Your task to perform on an android device: How much does a 2 bedroom apartment rent for in Houston? Image 0: 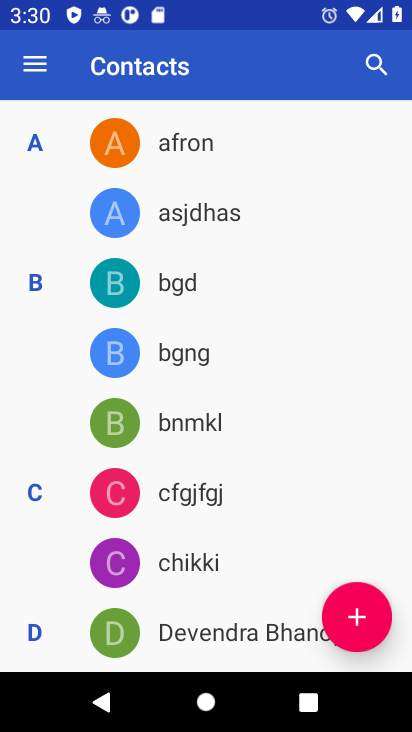
Step 0: press home button
Your task to perform on an android device: How much does a 2 bedroom apartment rent for in Houston? Image 1: 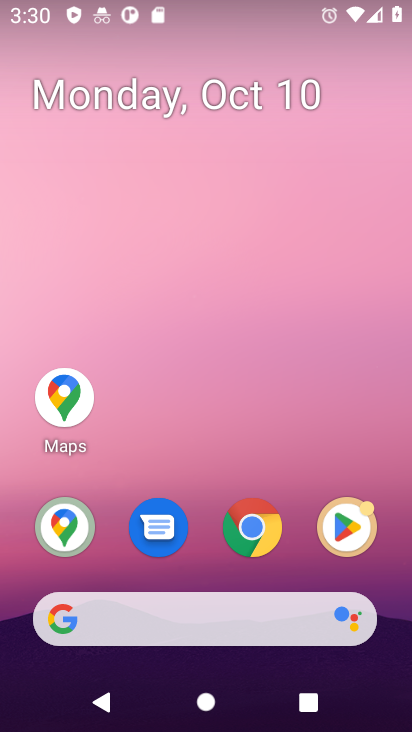
Step 1: click (253, 528)
Your task to perform on an android device: How much does a 2 bedroom apartment rent for in Houston? Image 2: 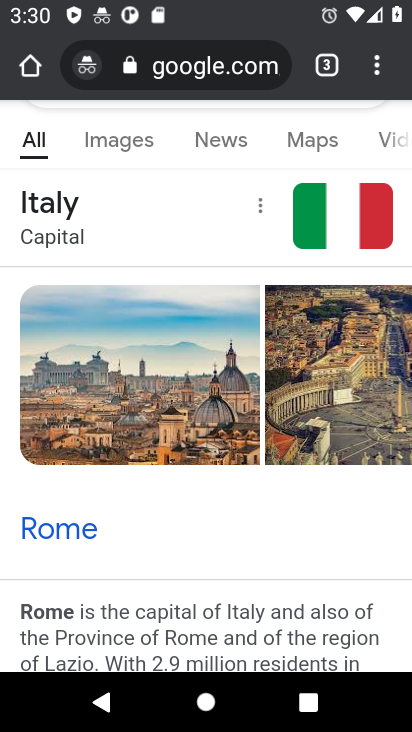
Step 2: click (227, 73)
Your task to perform on an android device: How much does a 2 bedroom apartment rent for in Houston? Image 3: 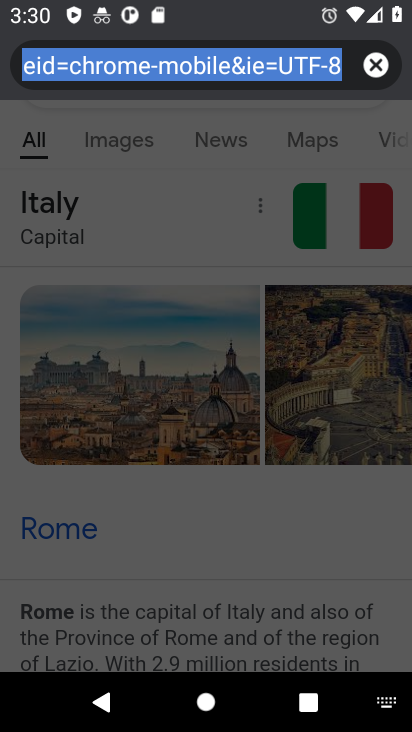
Step 3: click (377, 67)
Your task to perform on an android device: How much does a 2 bedroom apartment rent for in Houston? Image 4: 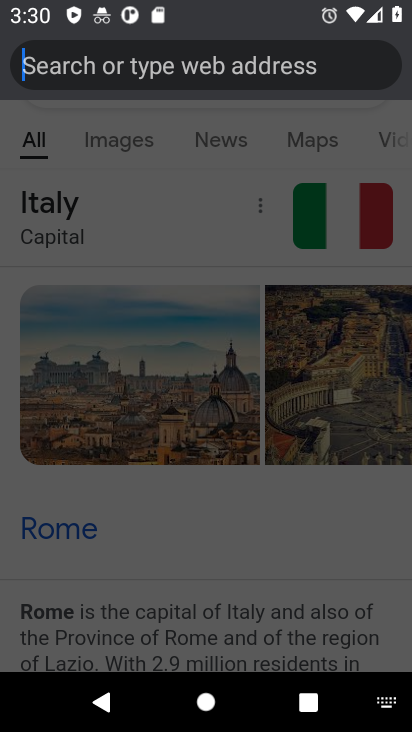
Step 4: type "How much does a 2 bedroom apartment rent for in Houston?"
Your task to perform on an android device: How much does a 2 bedroom apartment rent for in Houston? Image 5: 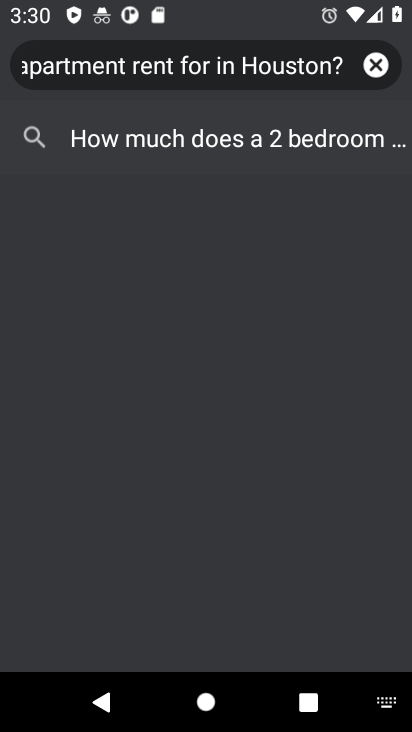
Step 5: click (293, 146)
Your task to perform on an android device: How much does a 2 bedroom apartment rent for in Houston? Image 6: 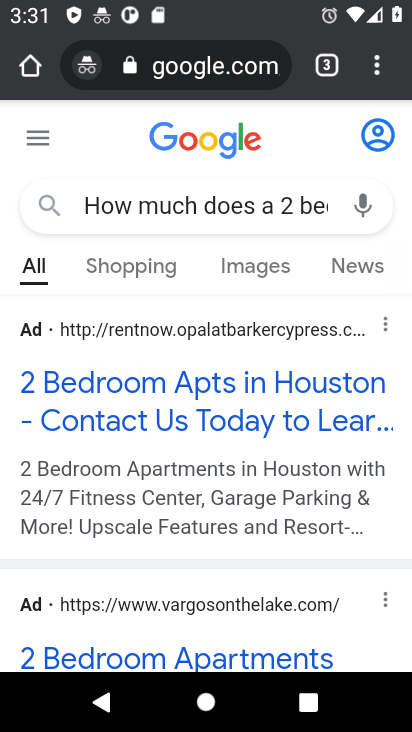
Step 6: drag from (153, 581) to (243, 371)
Your task to perform on an android device: How much does a 2 bedroom apartment rent for in Houston? Image 7: 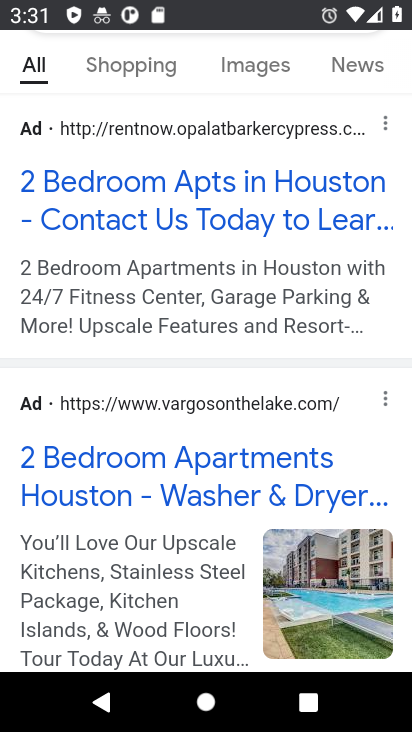
Step 7: drag from (174, 608) to (249, 423)
Your task to perform on an android device: How much does a 2 bedroom apartment rent for in Houston? Image 8: 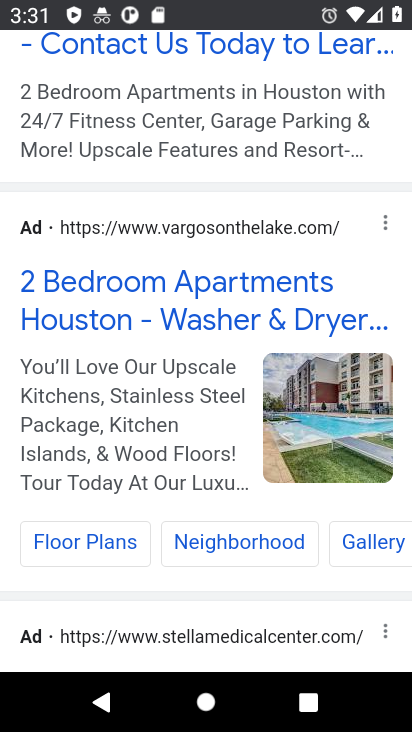
Step 8: drag from (131, 573) to (233, 341)
Your task to perform on an android device: How much does a 2 bedroom apartment rent for in Houston? Image 9: 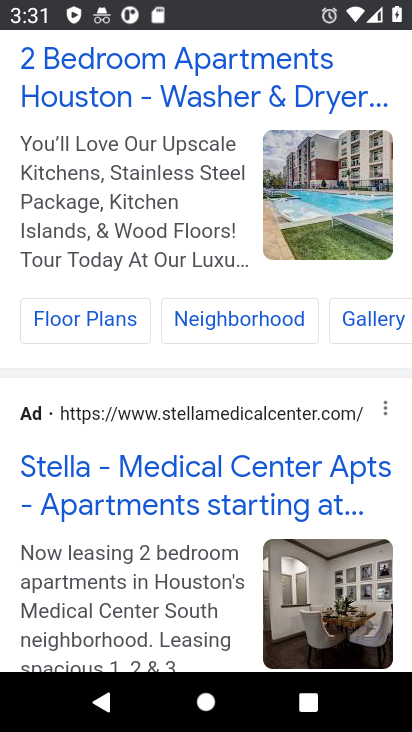
Step 9: drag from (196, 433) to (209, 368)
Your task to perform on an android device: How much does a 2 bedroom apartment rent for in Houston? Image 10: 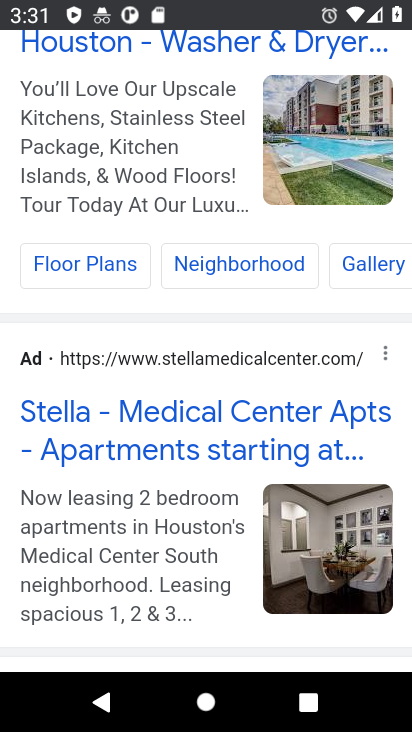
Step 10: drag from (131, 623) to (256, 391)
Your task to perform on an android device: How much does a 2 bedroom apartment rent for in Houston? Image 11: 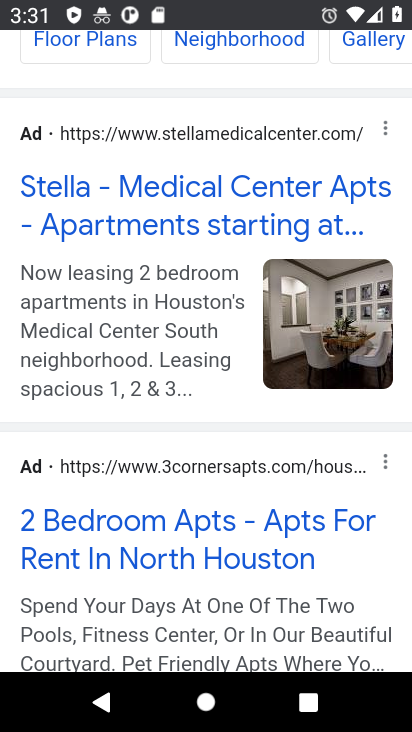
Step 11: drag from (188, 517) to (305, 218)
Your task to perform on an android device: How much does a 2 bedroom apartment rent for in Houston? Image 12: 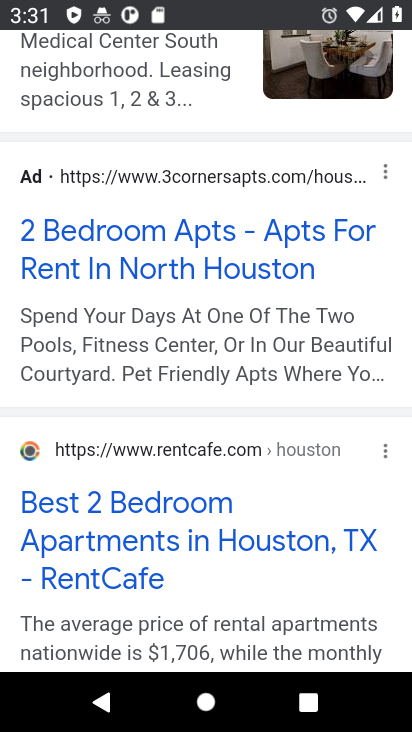
Step 12: drag from (199, 496) to (312, 359)
Your task to perform on an android device: How much does a 2 bedroom apartment rent for in Houston? Image 13: 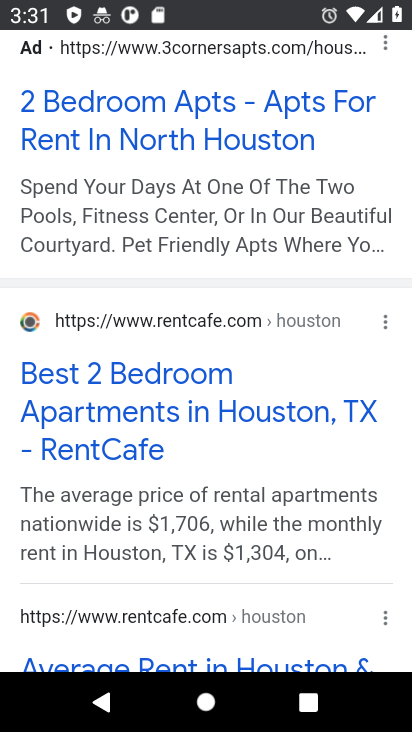
Step 13: click (247, 402)
Your task to perform on an android device: How much does a 2 bedroom apartment rent for in Houston? Image 14: 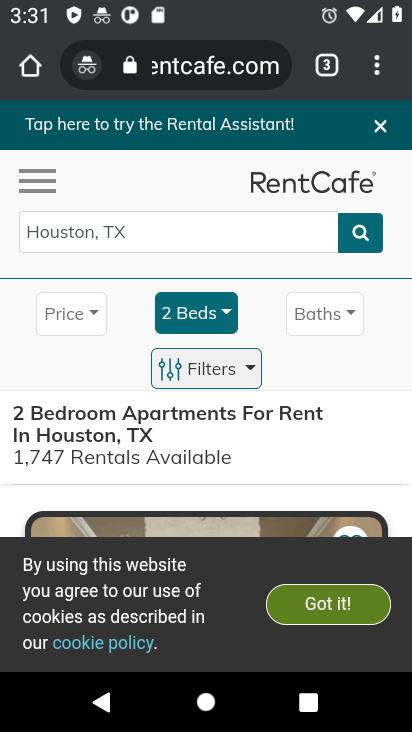
Step 14: drag from (223, 471) to (344, 334)
Your task to perform on an android device: How much does a 2 bedroom apartment rent for in Houston? Image 15: 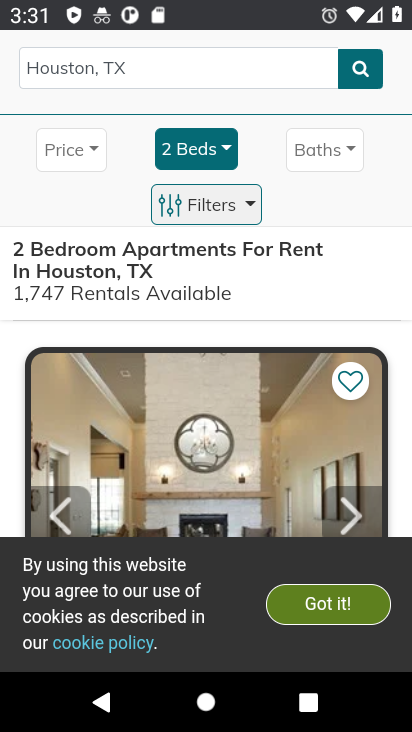
Step 15: drag from (239, 453) to (371, 283)
Your task to perform on an android device: How much does a 2 bedroom apartment rent for in Houston? Image 16: 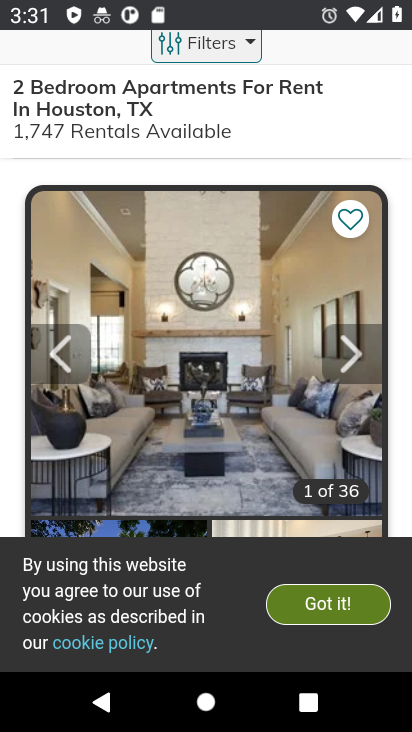
Step 16: drag from (232, 469) to (362, 274)
Your task to perform on an android device: How much does a 2 bedroom apartment rent for in Houston? Image 17: 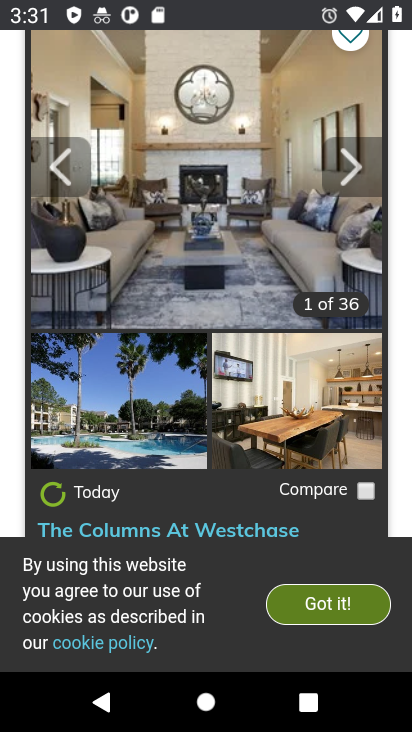
Step 17: drag from (276, 394) to (364, 248)
Your task to perform on an android device: How much does a 2 bedroom apartment rent for in Houston? Image 18: 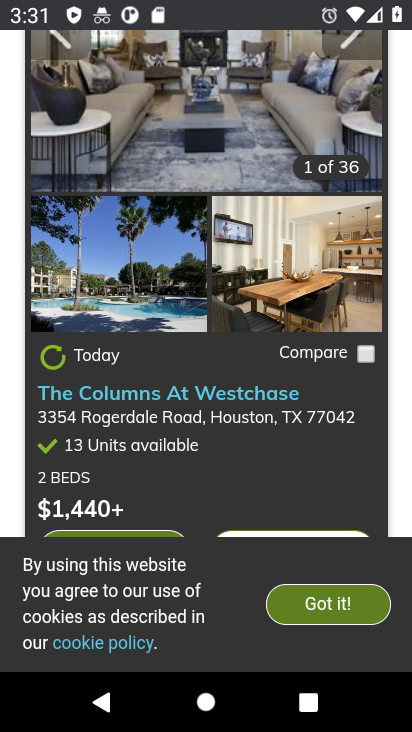
Step 18: drag from (221, 447) to (323, 323)
Your task to perform on an android device: How much does a 2 bedroom apartment rent for in Houston? Image 19: 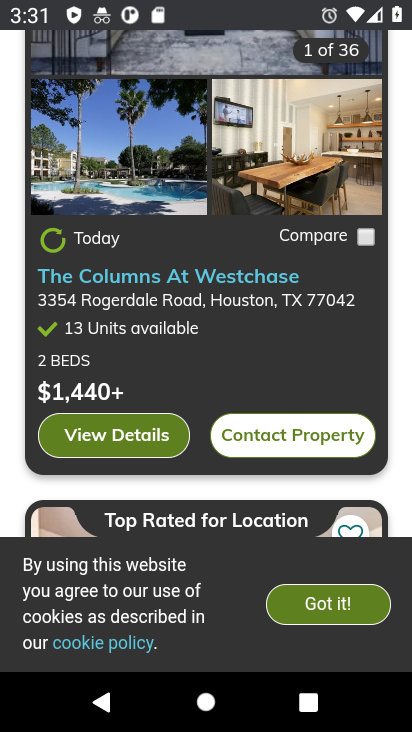
Step 19: click (327, 603)
Your task to perform on an android device: How much does a 2 bedroom apartment rent for in Houston? Image 20: 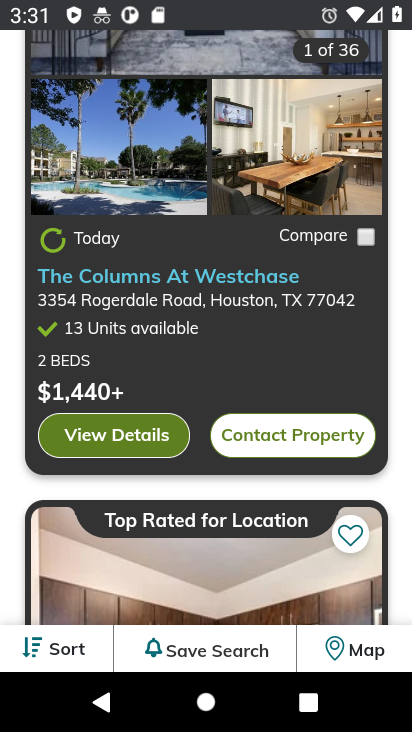
Step 20: task complete